Your task to perform on an android device: Go to Yahoo.com Image 0: 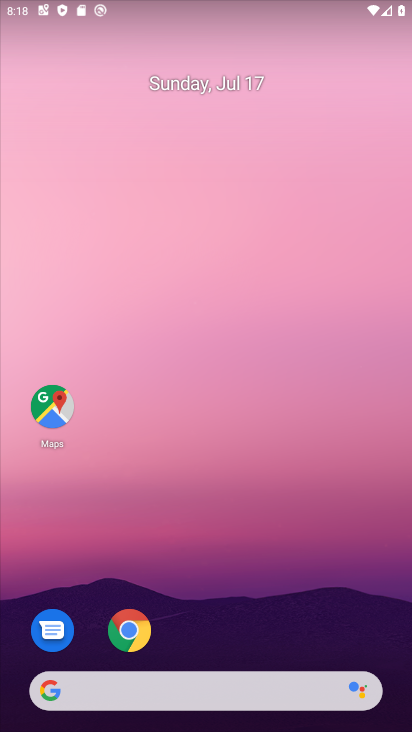
Step 0: drag from (337, 602) to (331, 113)
Your task to perform on an android device: Go to Yahoo.com Image 1: 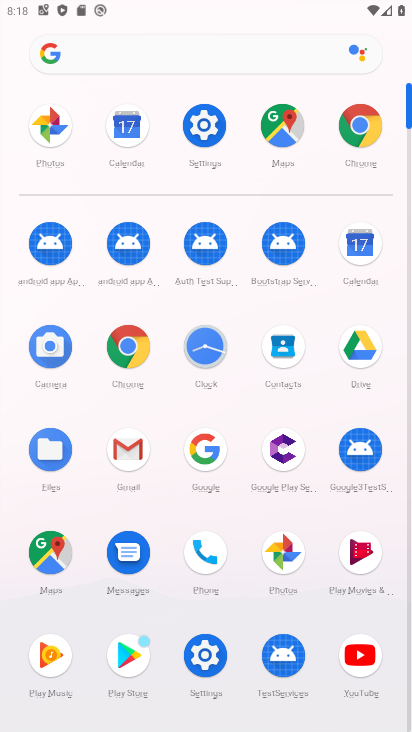
Step 1: click (133, 346)
Your task to perform on an android device: Go to Yahoo.com Image 2: 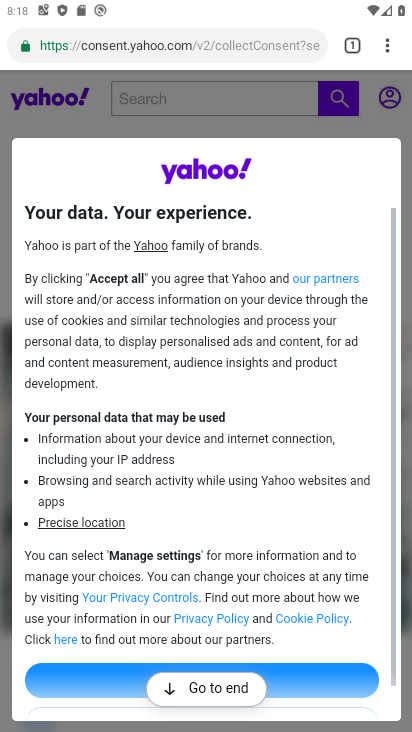
Step 2: task complete